Your task to perform on an android device: Open Google Chrome and open the bookmarks view Image 0: 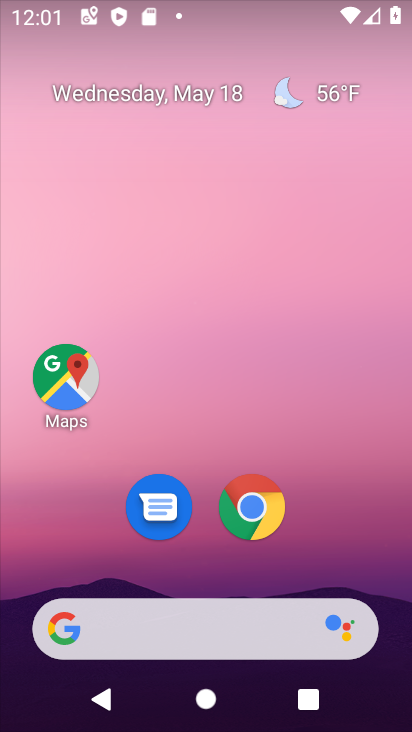
Step 0: click (250, 523)
Your task to perform on an android device: Open Google Chrome and open the bookmarks view Image 1: 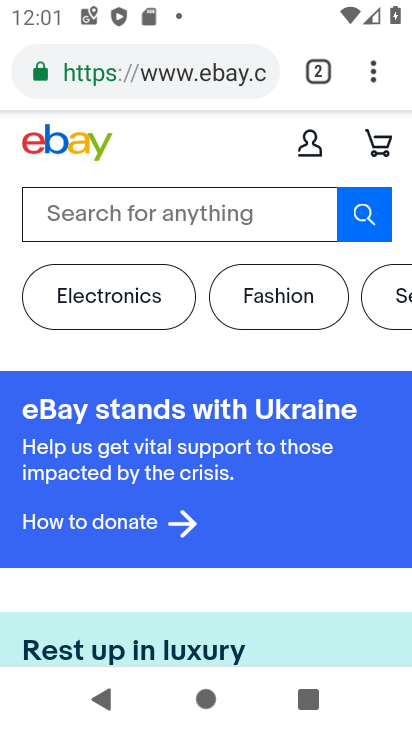
Step 1: click (375, 91)
Your task to perform on an android device: Open Google Chrome and open the bookmarks view Image 2: 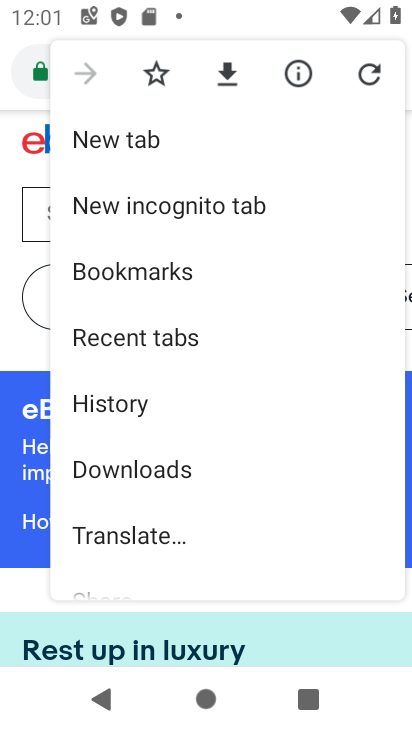
Step 2: click (284, 270)
Your task to perform on an android device: Open Google Chrome and open the bookmarks view Image 3: 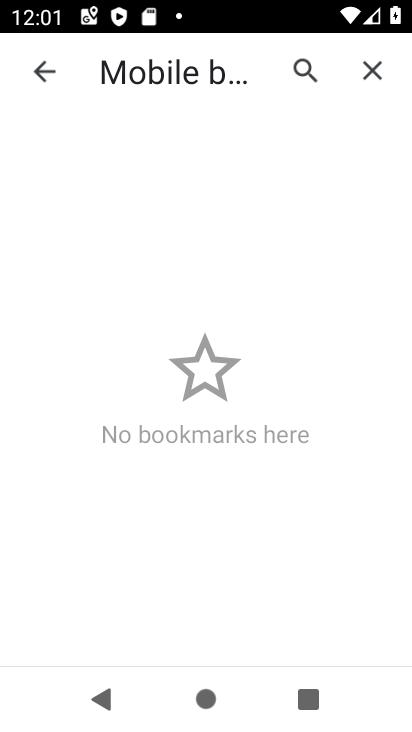
Step 3: click (284, 270)
Your task to perform on an android device: Open Google Chrome and open the bookmarks view Image 4: 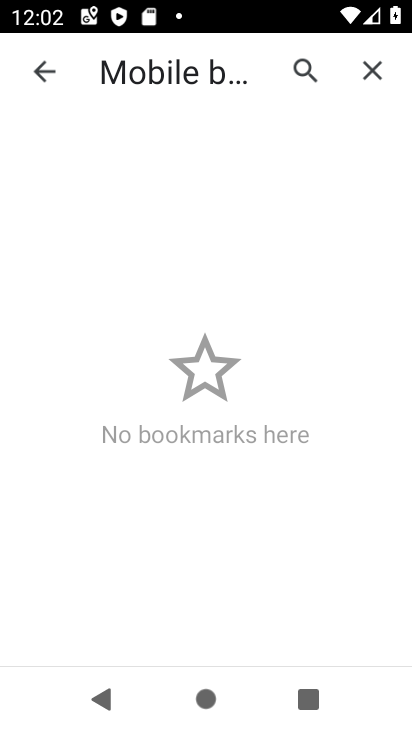
Step 4: task complete